Your task to perform on an android device: open app "DoorDash - Food Delivery" (install if not already installed), go to login, and select forgot password Image 0: 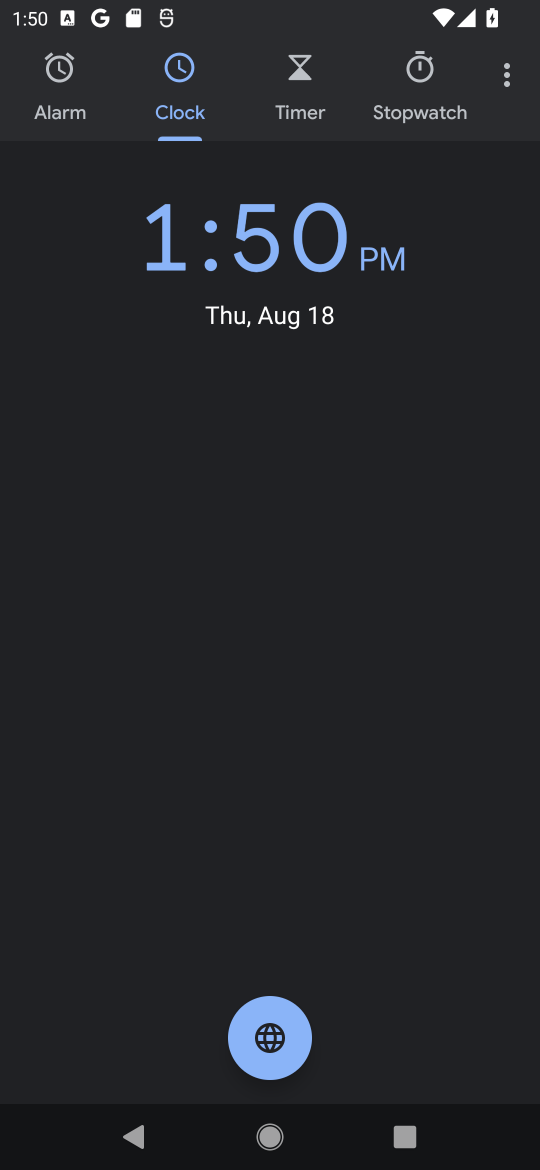
Step 0: press back button
Your task to perform on an android device: open app "DoorDash - Food Delivery" (install if not already installed), go to login, and select forgot password Image 1: 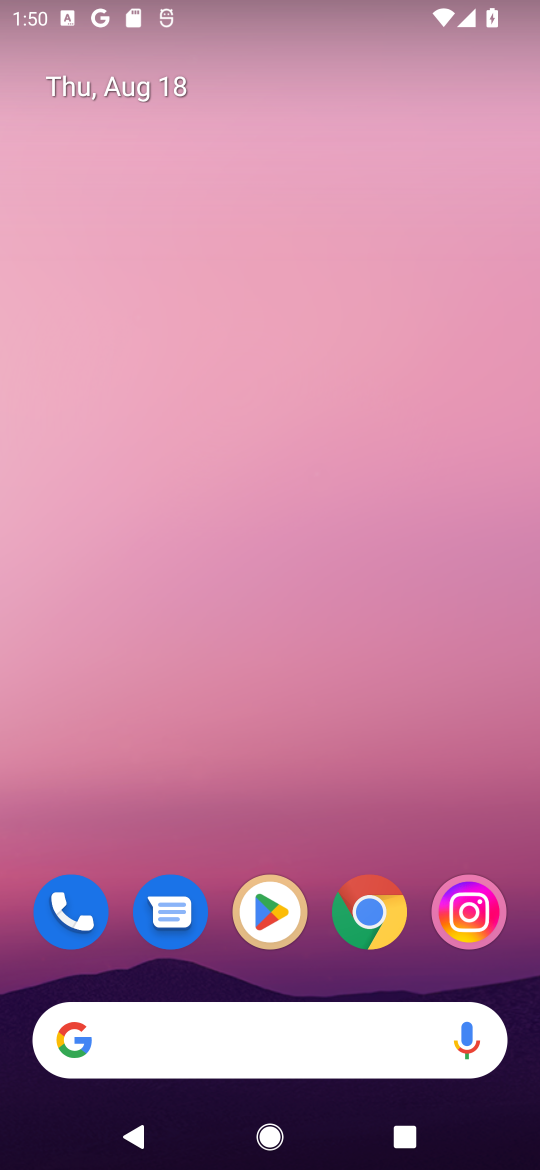
Step 1: click (255, 897)
Your task to perform on an android device: open app "DoorDash - Food Delivery" (install if not already installed), go to login, and select forgot password Image 2: 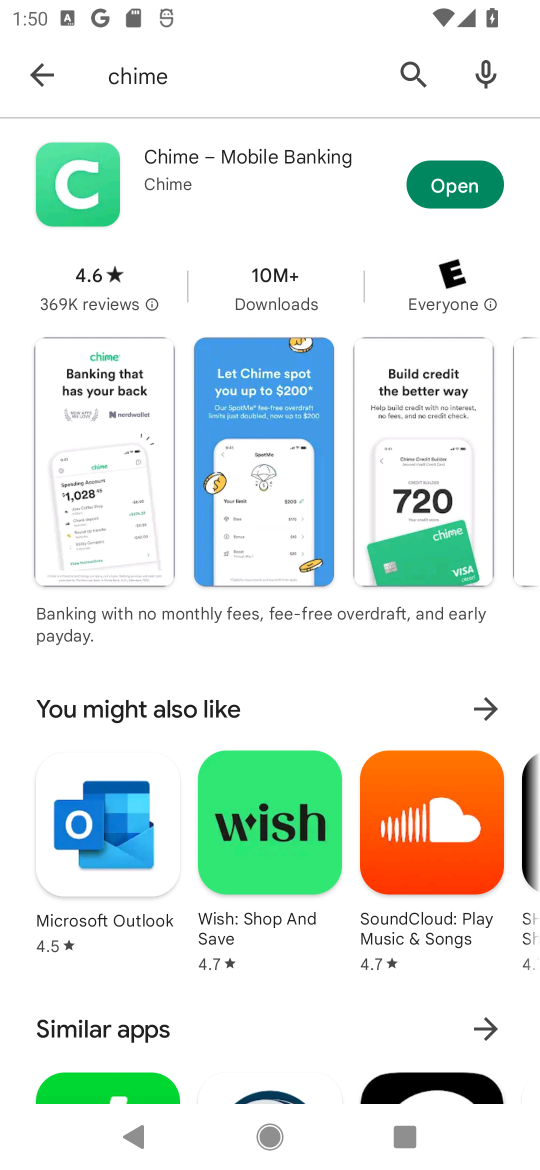
Step 2: click (416, 73)
Your task to perform on an android device: open app "DoorDash - Food Delivery" (install if not already installed), go to login, and select forgot password Image 3: 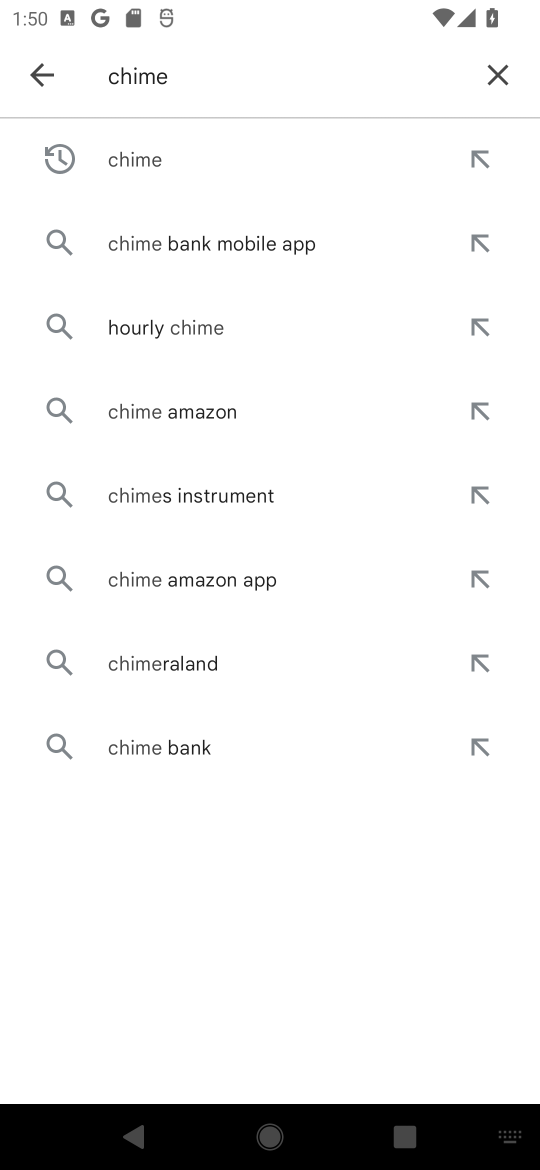
Step 3: click (494, 79)
Your task to perform on an android device: open app "DoorDash - Food Delivery" (install if not already installed), go to login, and select forgot password Image 4: 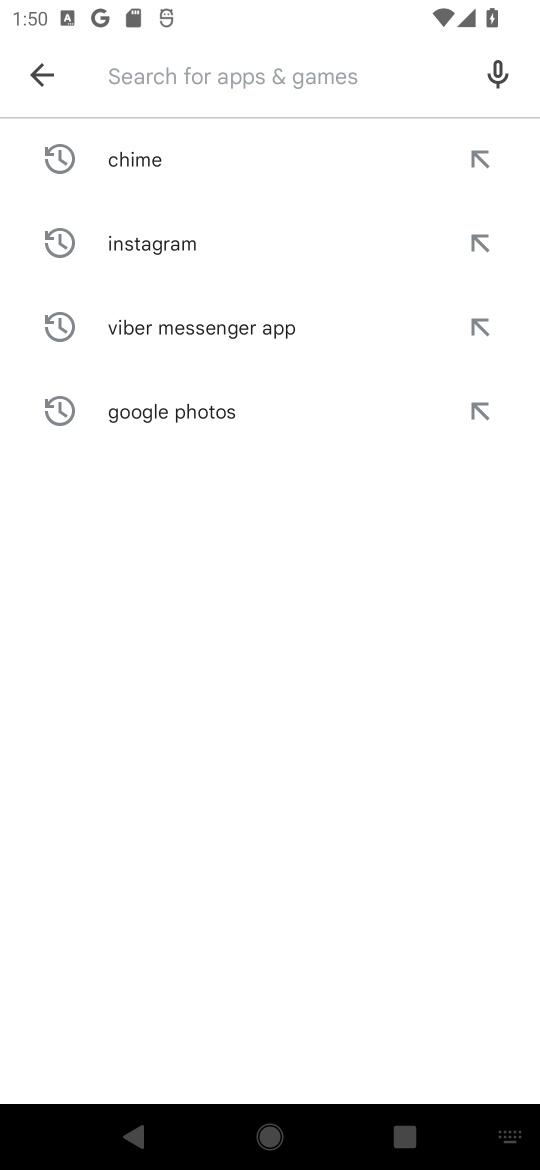
Step 4: click (219, 65)
Your task to perform on an android device: open app "DoorDash - Food Delivery" (install if not already installed), go to login, and select forgot password Image 5: 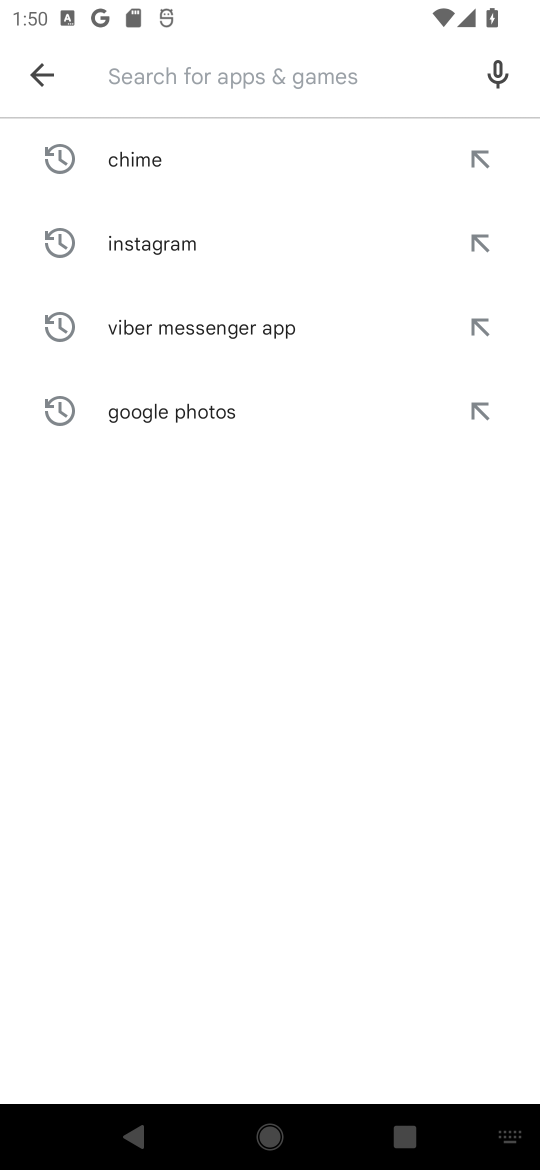
Step 5: type "DoorDash"
Your task to perform on an android device: open app "DoorDash - Food Delivery" (install if not already installed), go to login, and select forgot password Image 6: 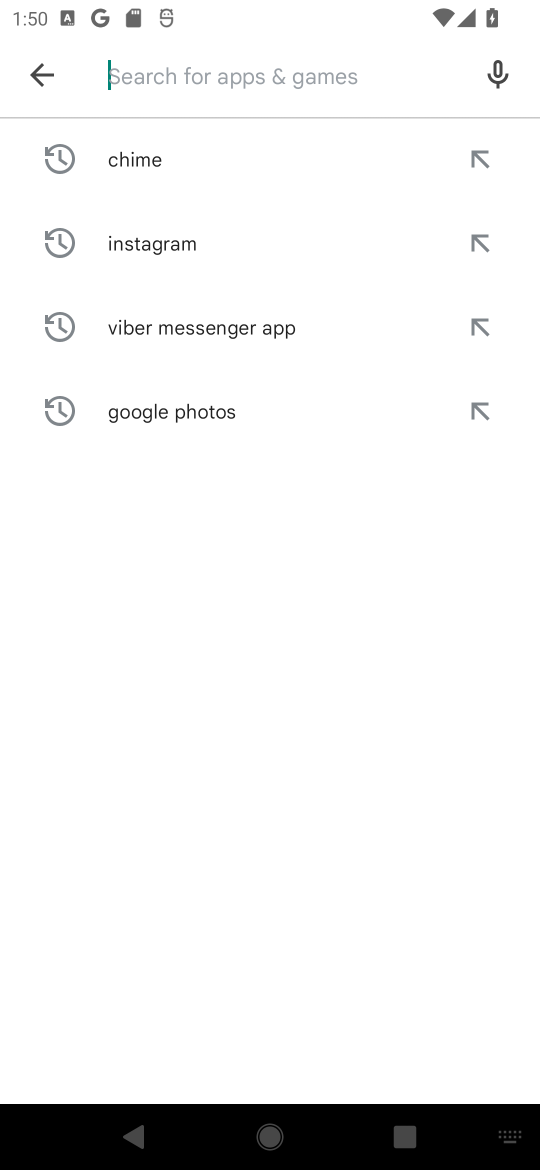
Step 6: click (268, 777)
Your task to perform on an android device: open app "DoorDash - Food Delivery" (install if not already installed), go to login, and select forgot password Image 7: 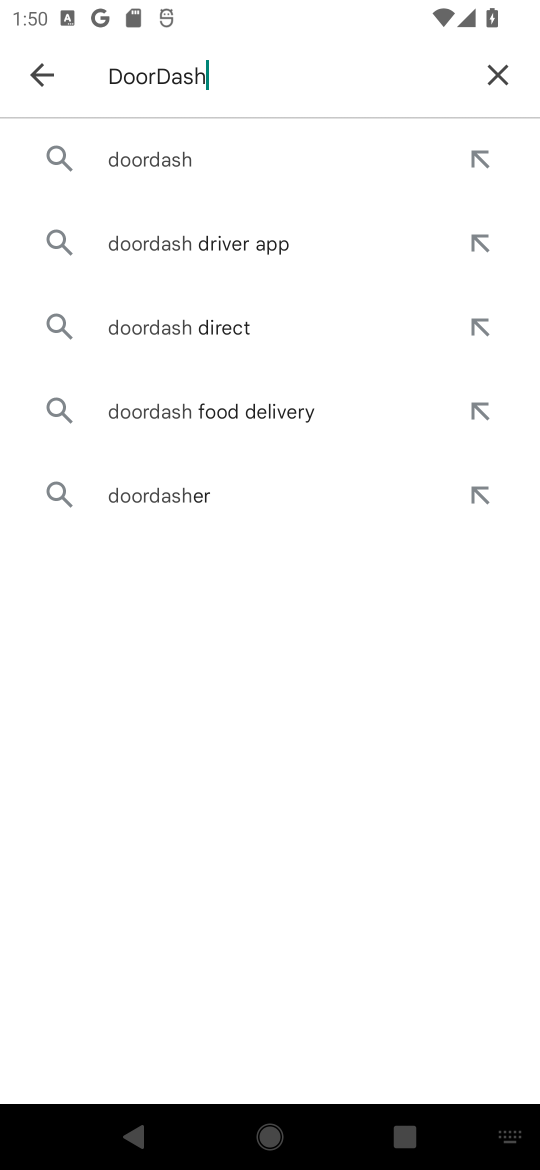
Step 7: click (193, 151)
Your task to perform on an android device: open app "DoorDash - Food Delivery" (install if not already installed), go to login, and select forgot password Image 8: 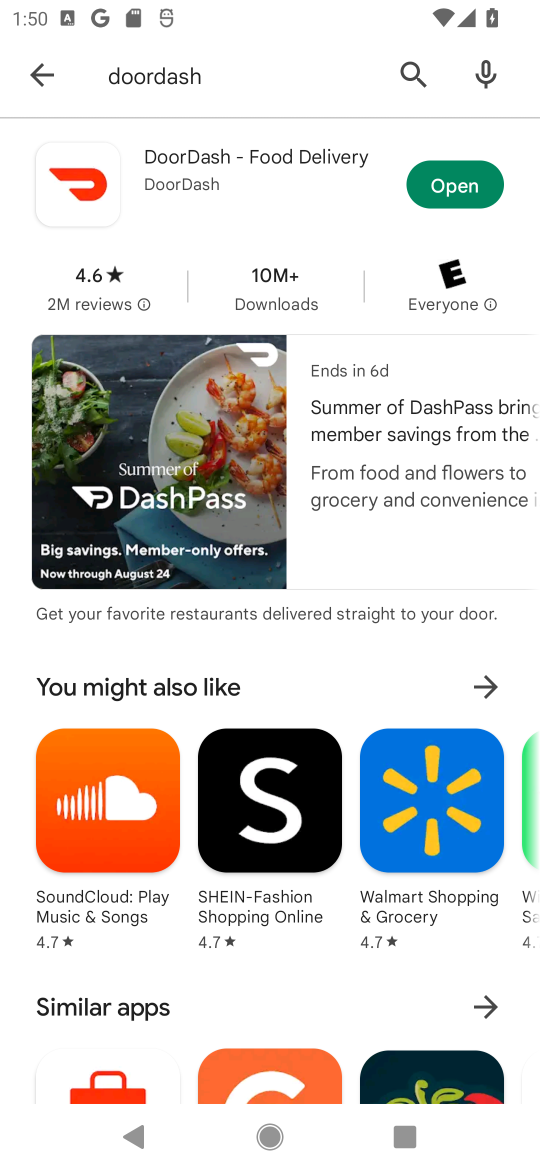
Step 8: click (447, 192)
Your task to perform on an android device: open app "DoorDash - Food Delivery" (install if not already installed), go to login, and select forgot password Image 9: 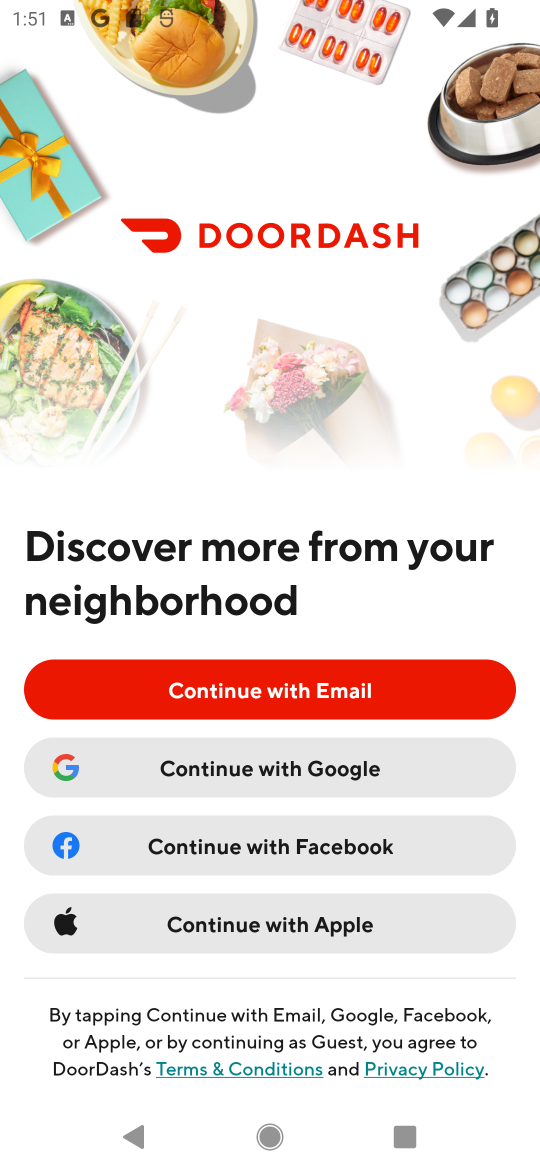
Step 9: click (299, 675)
Your task to perform on an android device: open app "DoorDash - Food Delivery" (install if not already installed), go to login, and select forgot password Image 10: 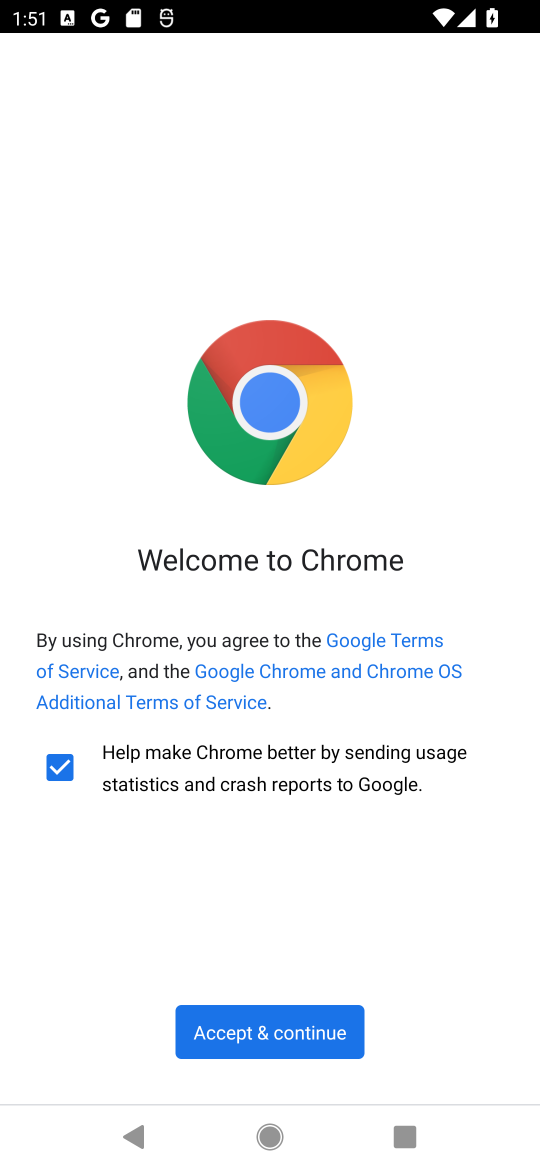
Step 10: click (265, 1048)
Your task to perform on an android device: open app "DoorDash - Food Delivery" (install if not already installed), go to login, and select forgot password Image 11: 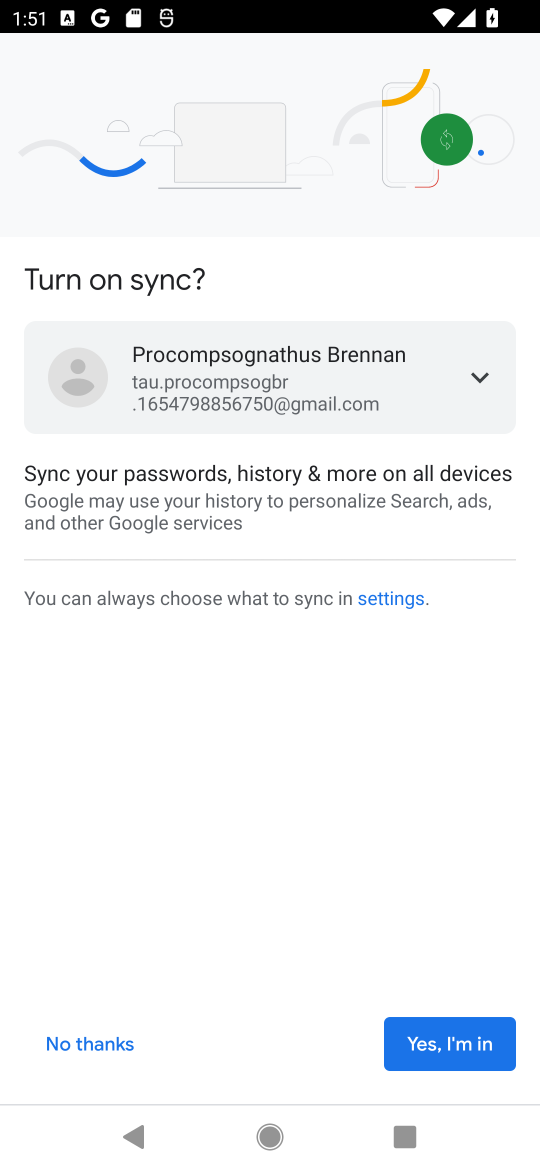
Step 11: click (432, 1037)
Your task to perform on an android device: open app "DoorDash - Food Delivery" (install if not already installed), go to login, and select forgot password Image 12: 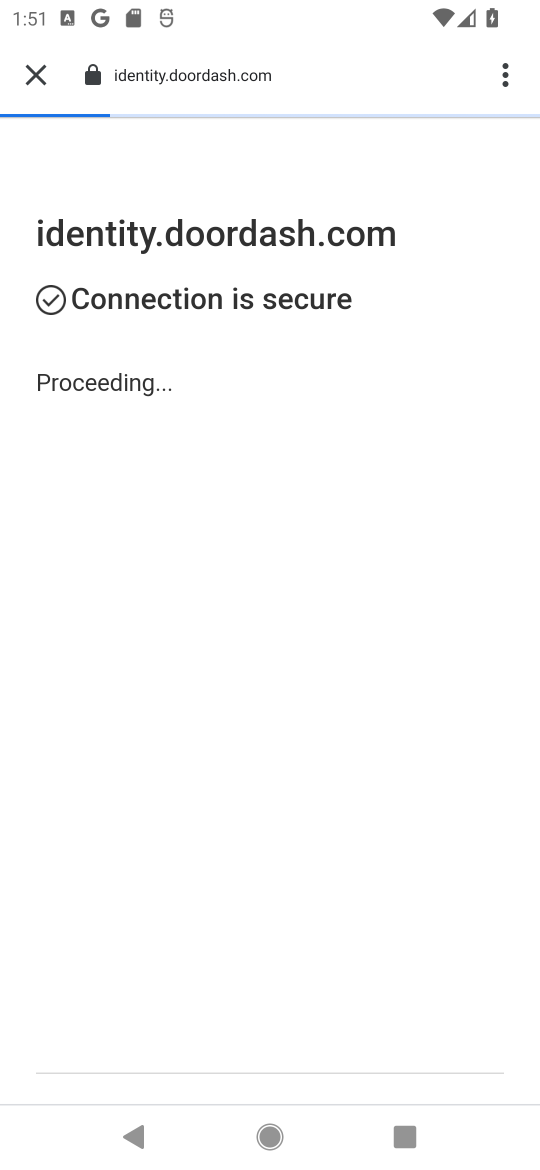
Step 12: task complete